Your task to perform on an android device: change the clock display to digital Image 0: 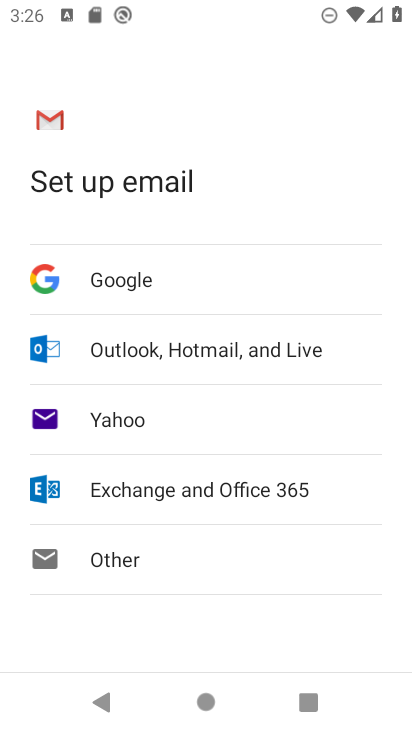
Step 0: press home button
Your task to perform on an android device: change the clock display to digital Image 1: 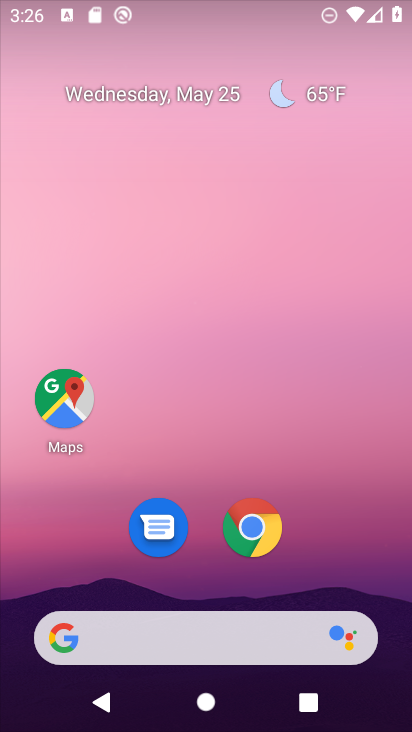
Step 1: drag from (274, 652) to (279, 5)
Your task to perform on an android device: change the clock display to digital Image 2: 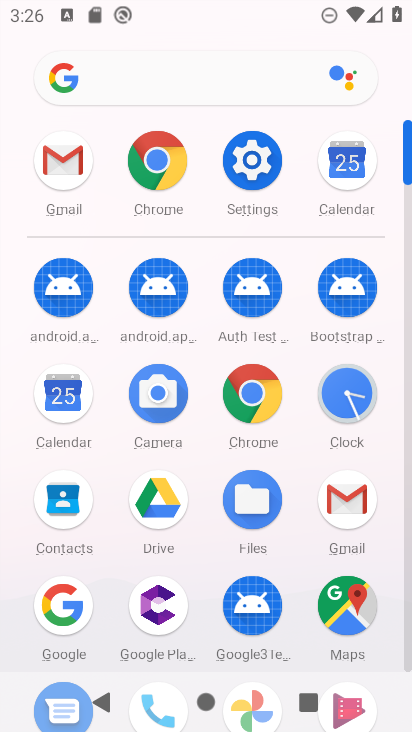
Step 2: click (335, 384)
Your task to perform on an android device: change the clock display to digital Image 3: 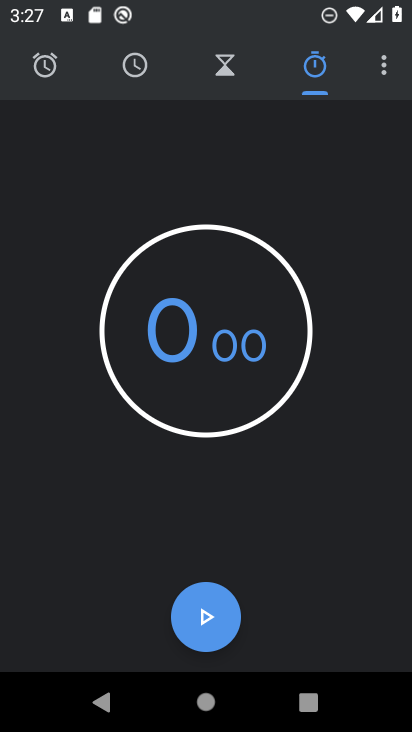
Step 3: click (384, 58)
Your task to perform on an android device: change the clock display to digital Image 4: 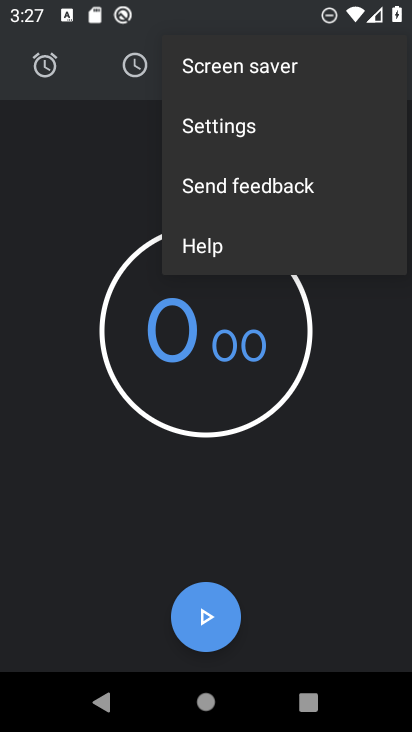
Step 4: click (295, 134)
Your task to perform on an android device: change the clock display to digital Image 5: 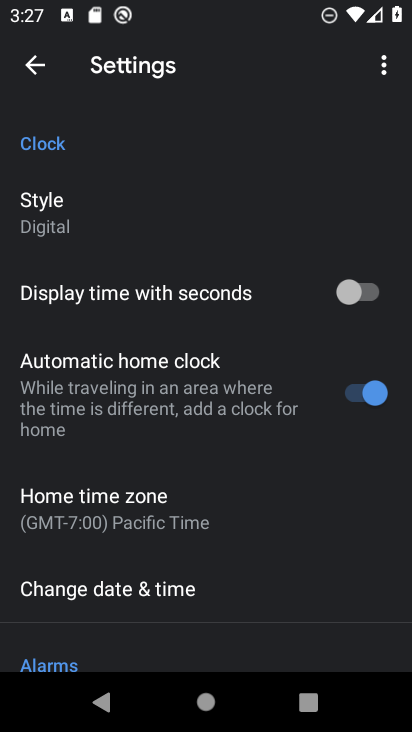
Step 5: task complete